Your task to perform on an android device: Show me recent news Image 0: 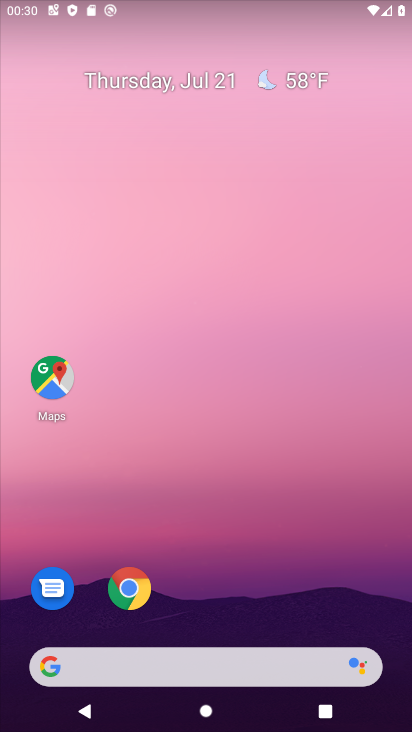
Step 0: drag from (200, 628) to (194, 7)
Your task to perform on an android device: Show me recent news Image 1: 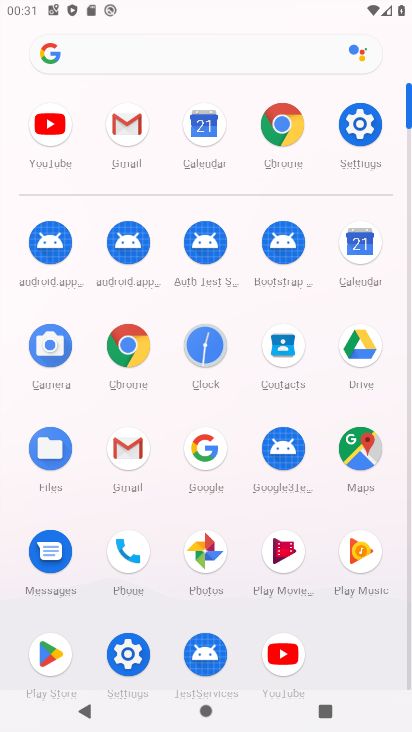
Step 1: click (206, 49)
Your task to perform on an android device: Show me recent news Image 2: 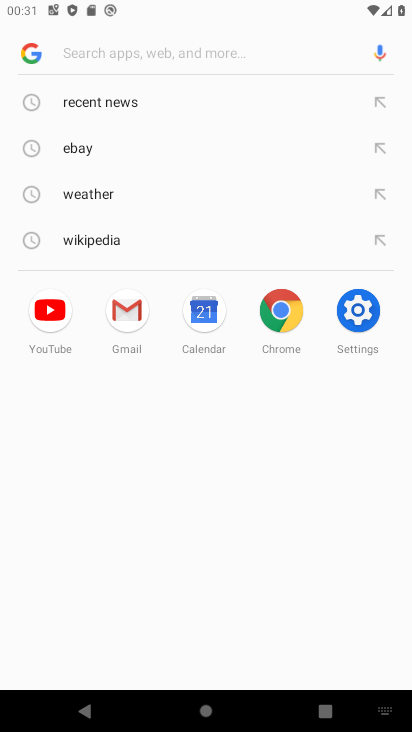
Step 2: type "recent news"
Your task to perform on an android device: Show me recent news Image 3: 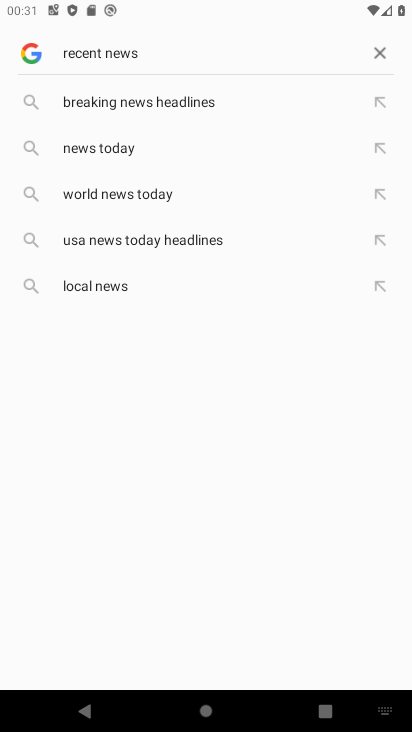
Step 3: click (107, 150)
Your task to perform on an android device: Show me recent news Image 4: 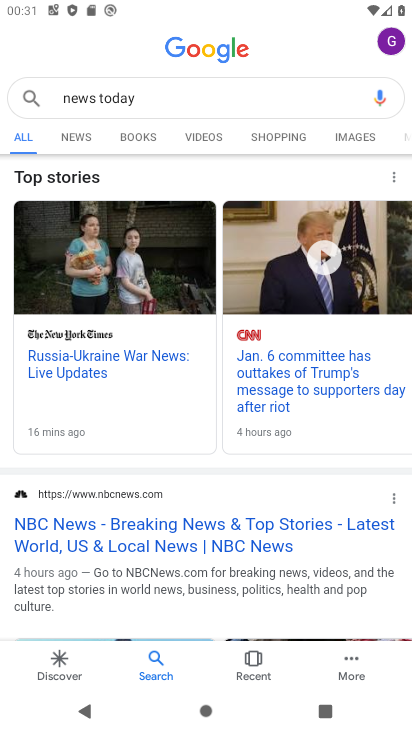
Step 4: task complete